Your task to perform on an android device: Is it going to rain tomorrow? Image 0: 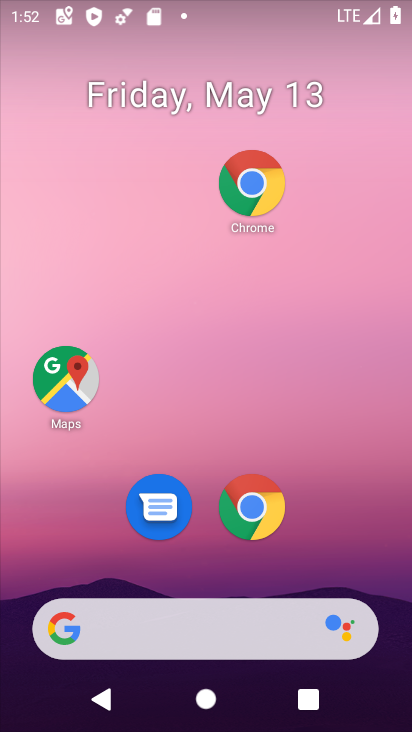
Step 0: drag from (382, 661) to (115, 100)
Your task to perform on an android device: Is it going to rain tomorrow? Image 1: 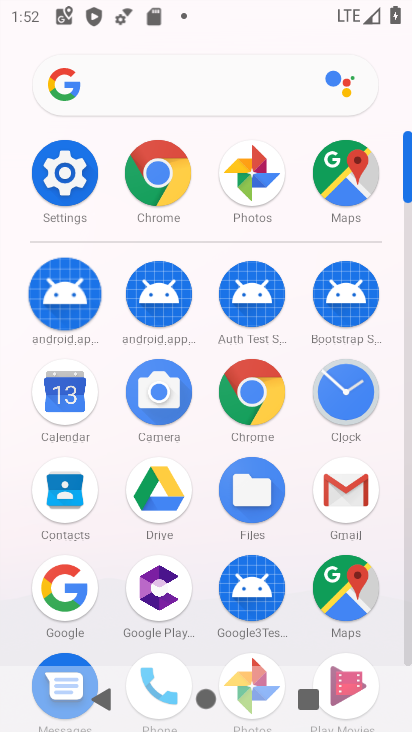
Step 1: click (65, 498)
Your task to perform on an android device: Is it going to rain tomorrow? Image 2: 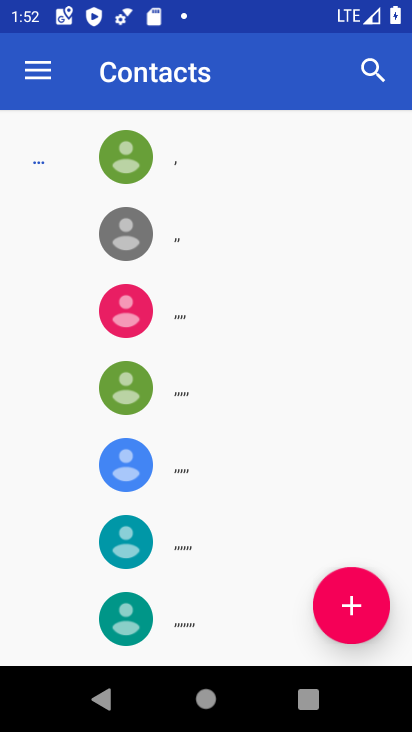
Step 2: press back button
Your task to perform on an android device: Is it going to rain tomorrow? Image 3: 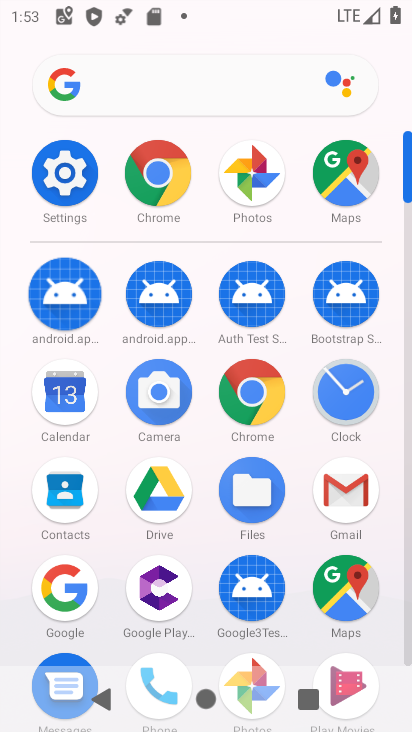
Step 3: press home button
Your task to perform on an android device: Is it going to rain tomorrow? Image 4: 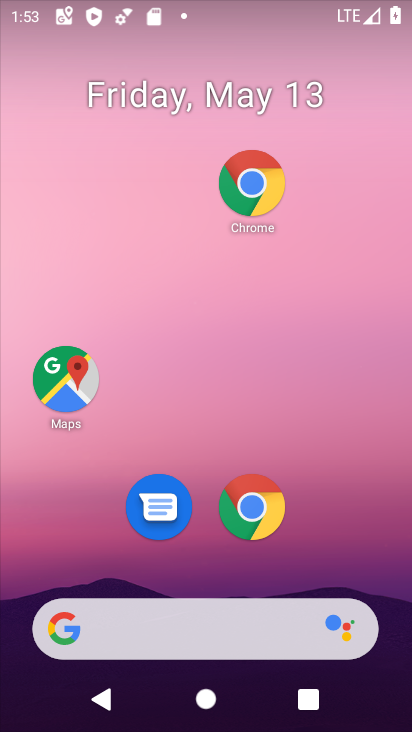
Step 4: drag from (403, 436) to (409, 393)
Your task to perform on an android device: Is it going to rain tomorrow? Image 5: 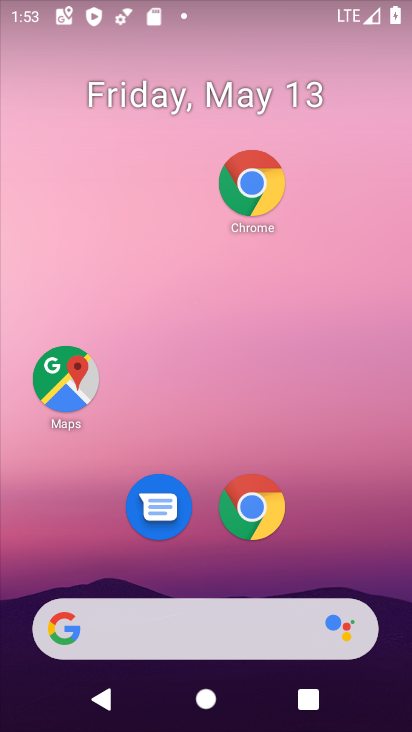
Step 5: drag from (13, 201) to (394, 375)
Your task to perform on an android device: Is it going to rain tomorrow? Image 6: 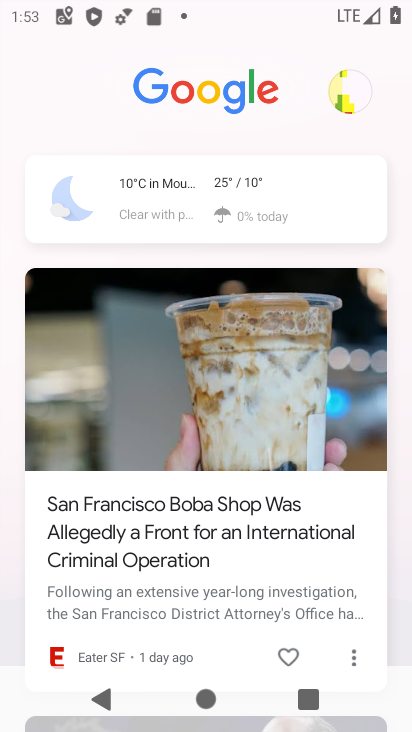
Step 6: click (175, 192)
Your task to perform on an android device: Is it going to rain tomorrow? Image 7: 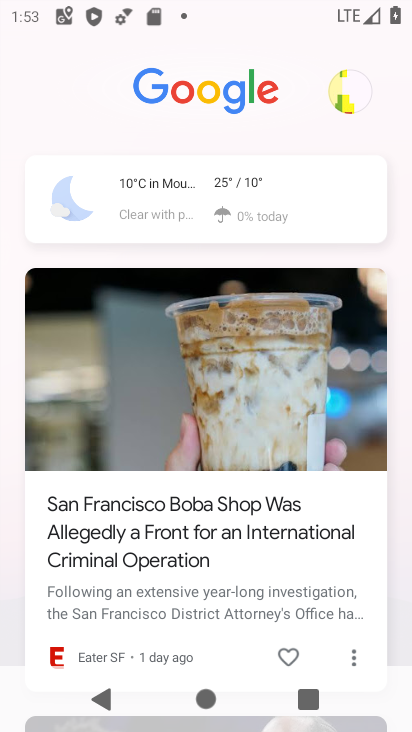
Step 7: click (175, 192)
Your task to perform on an android device: Is it going to rain tomorrow? Image 8: 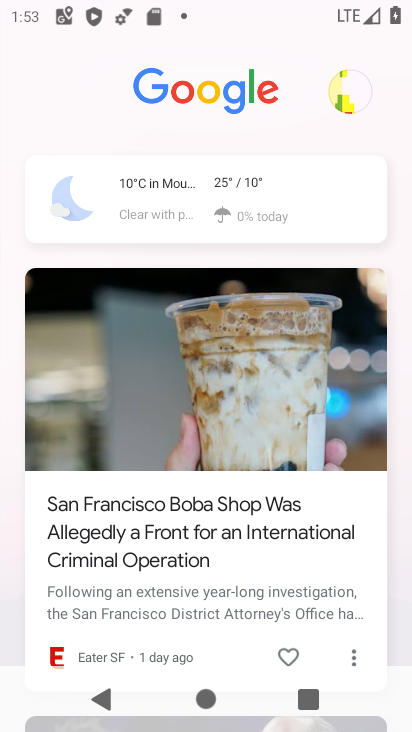
Step 8: click (174, 190)
Your task to perform on an android device: Is it going to rain tomorrow? Image 9: 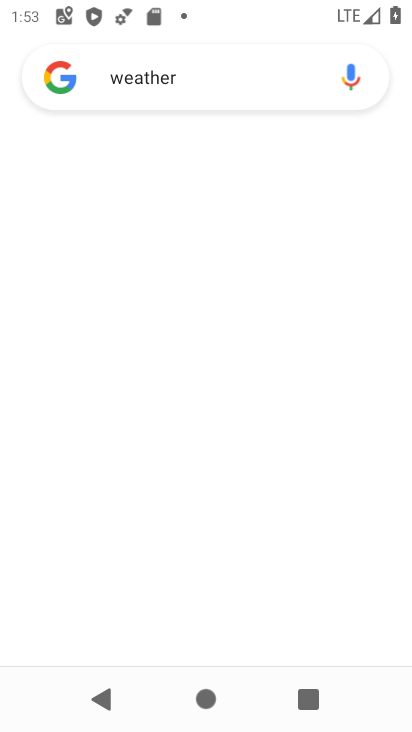
Step 9: click (173, 175)
Your task to perform on an android device: Is it going to rain tomorrow? Image 10: 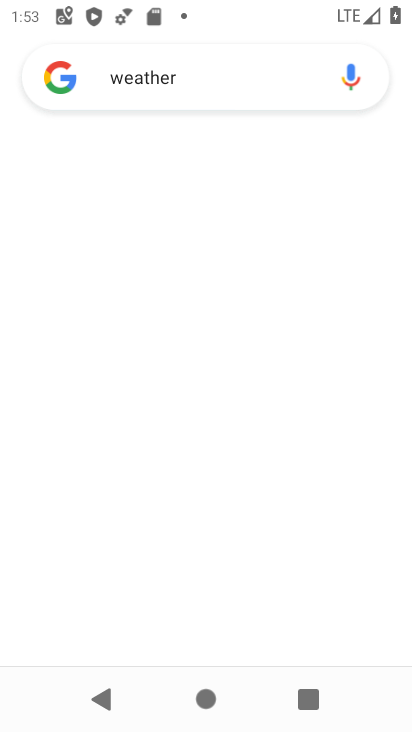
Step 10: click (173, 175)
Your task to perform on an android device: Is it going to rain tomorrow? Image 11: 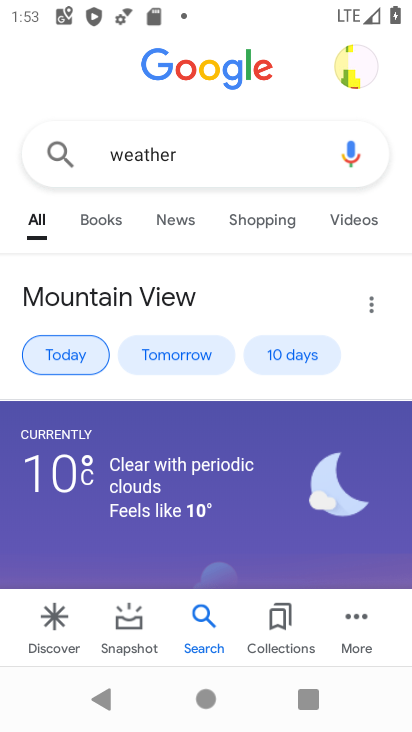
Step 11: task complete